Your task to perform on an android device: Open Android settings Image 0: 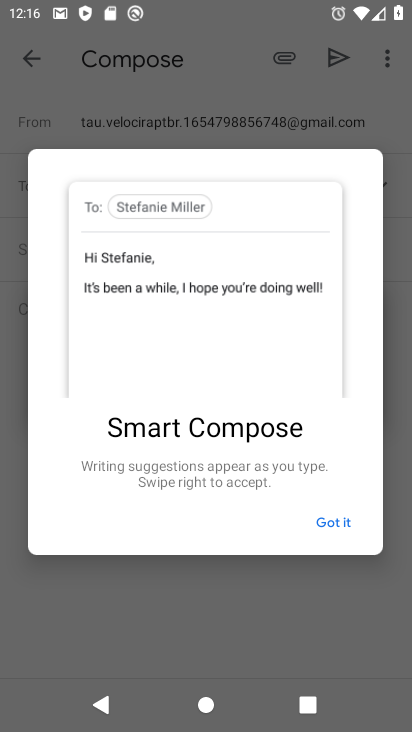
Step 0: press home button
Your task to perform on an android device: Open Android settings Image 1: 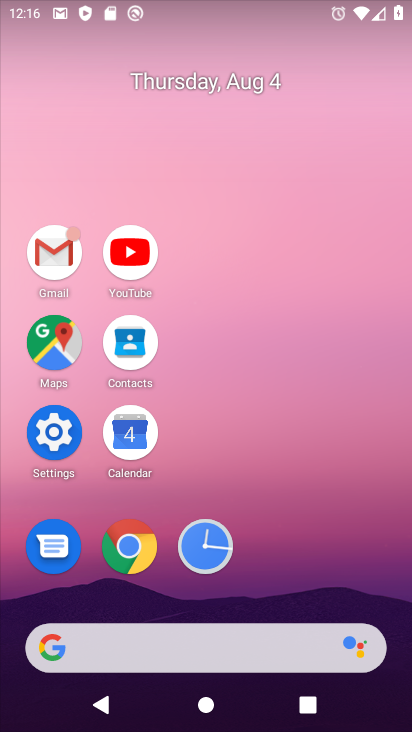
Step 1: click (58, 433)
Your task to perform on an android device: Open Android settings Image 2: 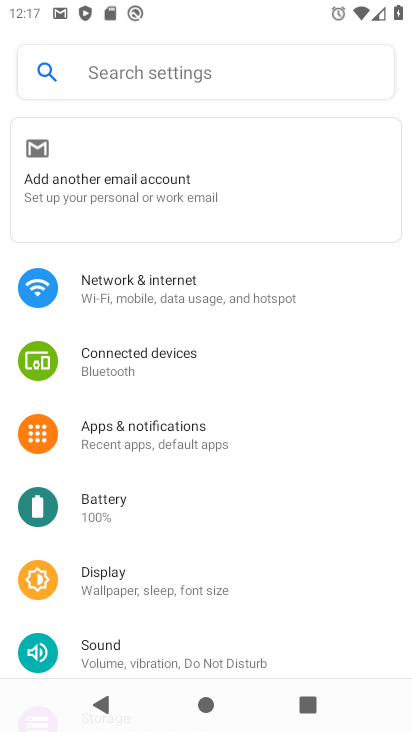
Step 2: drag from (283, 620) to (283, 250)
Your task to perform on an android device: Open Android settings Image 3: 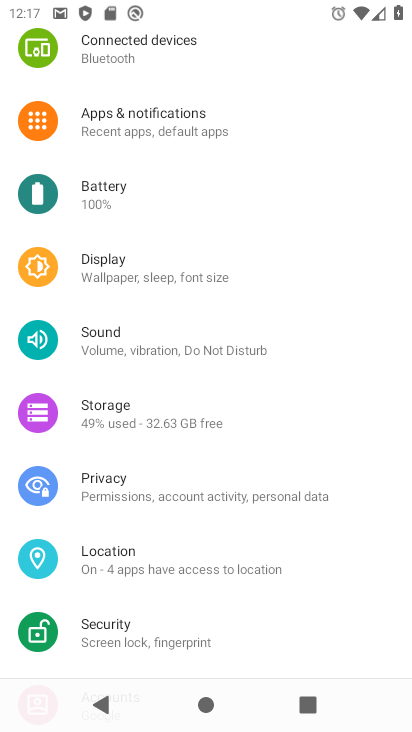
Step 3: drag from (276, 622) to (291, 87)
Your task to perform on an android device: Open Android settings Image 4: 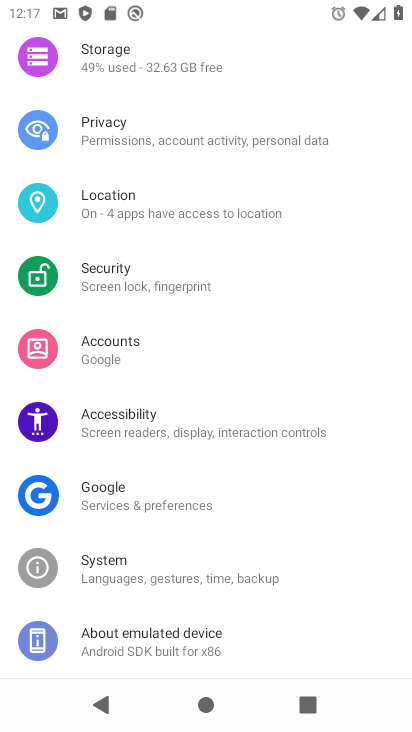
Step 4: click (153, 642)
Your task to perform on an android device: Open Android settings Image 5: 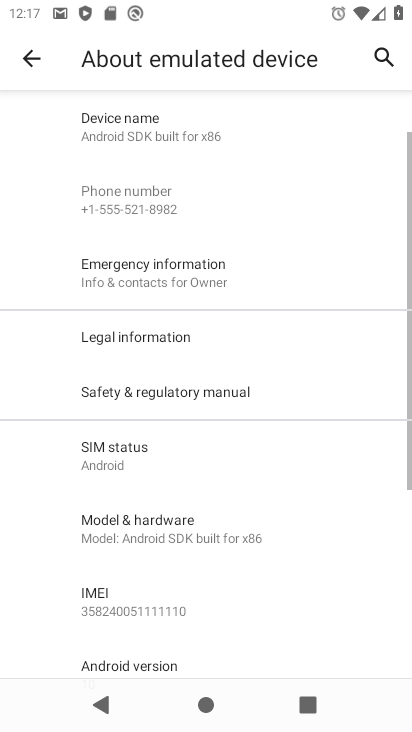
Step 5: click (148, 663)
Your task to perform on an android device: Open Android settings Image 6: 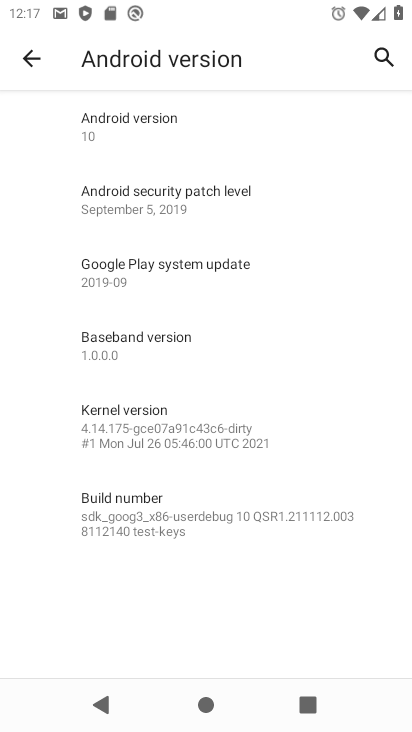
Step 6: task complete